Your task to perform on an android device: turn off improve location accuracy Image 0: 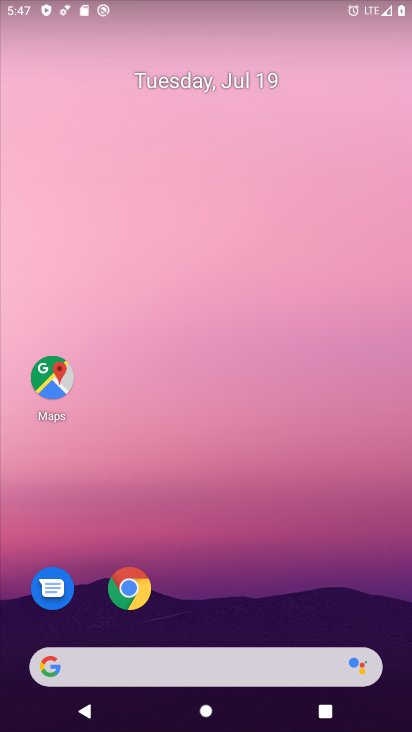
Step 0: drag from (215, 611) to (192, 267)
Your task to perform on an android device: turn off improve location accuracy Image 1: 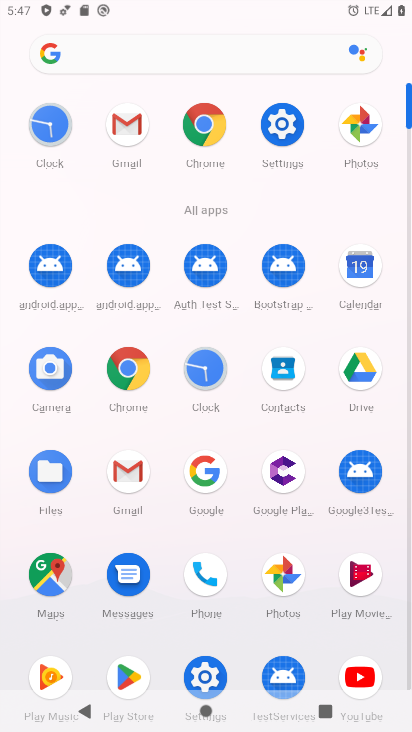
Step 1: click (296, 99)
Your task to perform on an android device: turn off improve location accuracy Image 2: 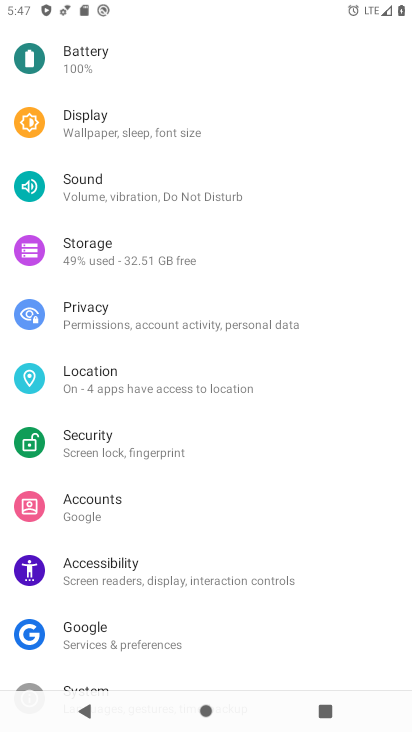
Step 2: click (111, 393)
Your task to perform on an android device: turn off improve location accuracy Image 3: 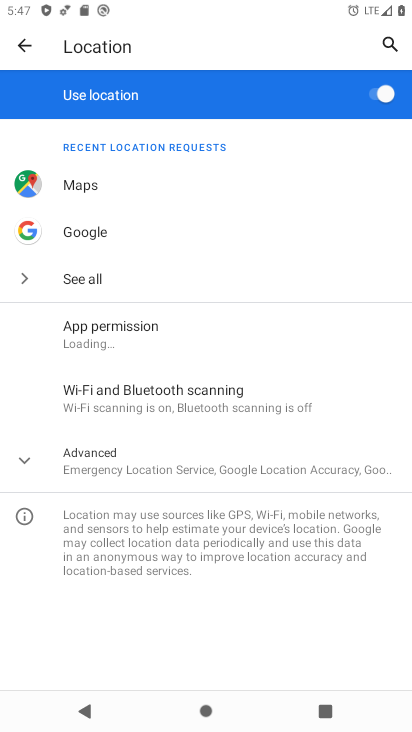
Step 3: click (193, 523)
Your task to perform on an android device: turn off improve location accuracy Image 4: 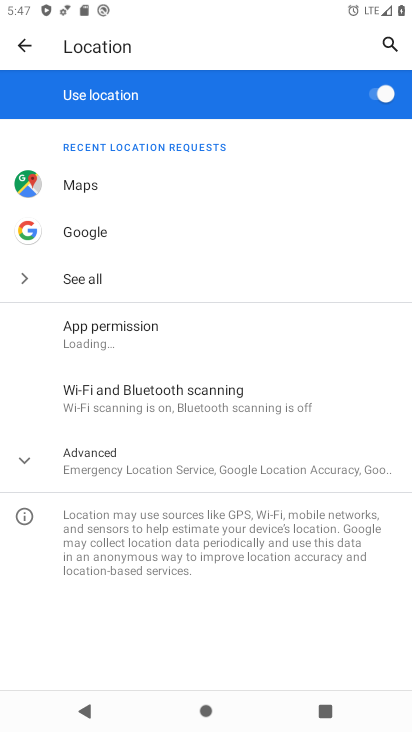
Step 4: click (198, 478)
Your task to perform on an android device: turn off improve location accuracy Image 5: 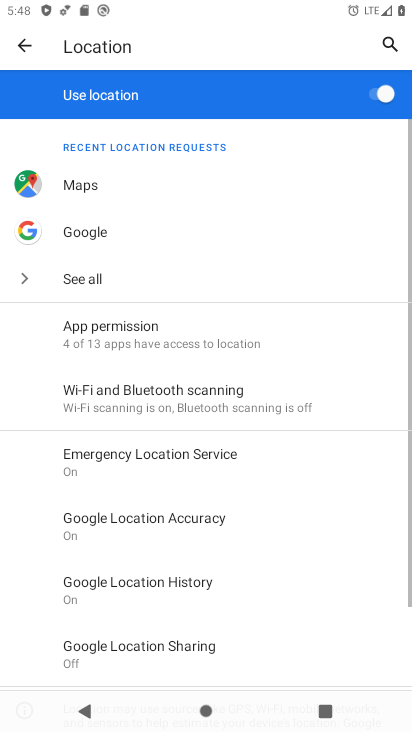
Step 5: click (234, 532)
Your task to perform on an android device: turn off improve location accuracy Image 6: 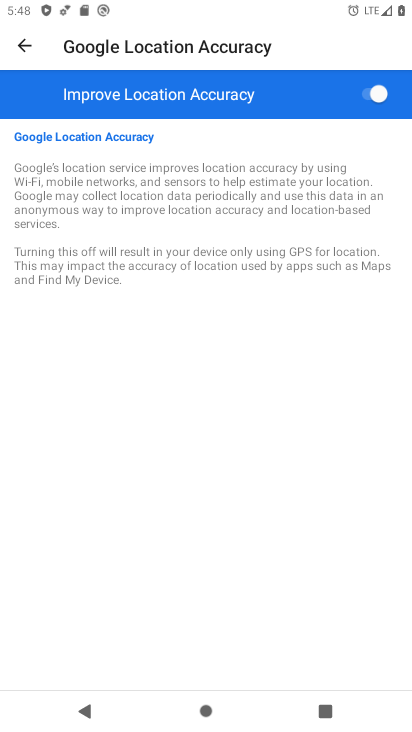
Step 6: click (364, 97)
Your task to perform on an android device: turn off improve location accuracy Image 7: 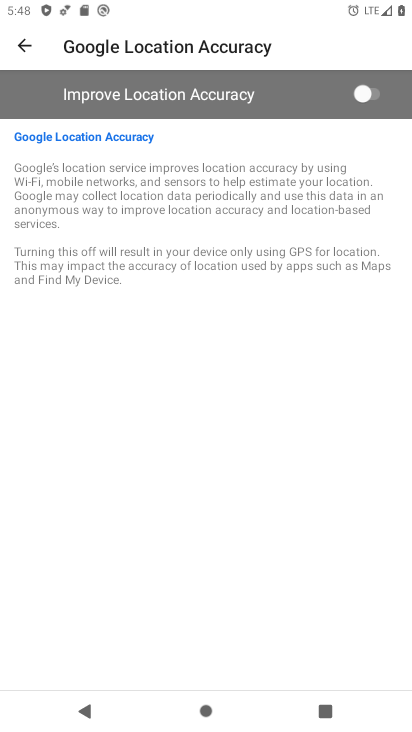
Step 7: task complete